Your task to perform on an android device: Open CNN.com Image 0: 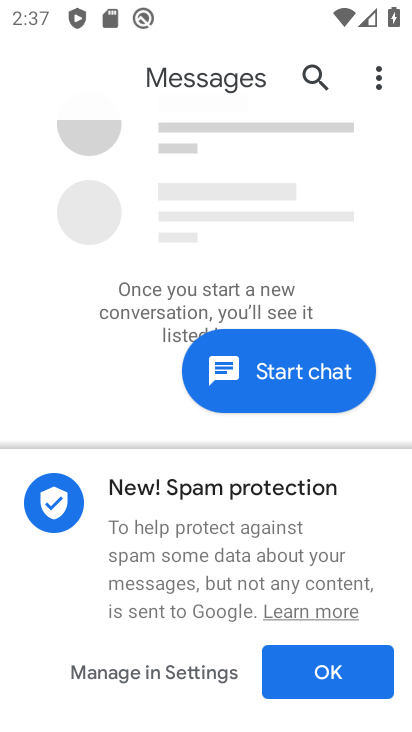
Step 0: press home button
Your task to perform on an android device: Open CNN.com Image 1: 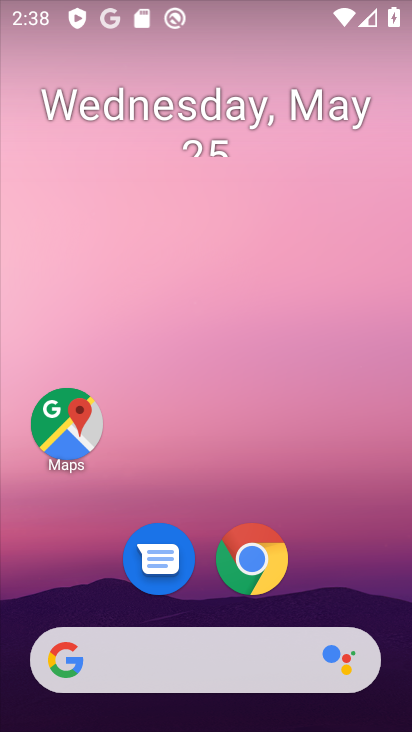
Step 1: click (248, 550)
Your task to perform on an android device: Open CNN.com Image 2: 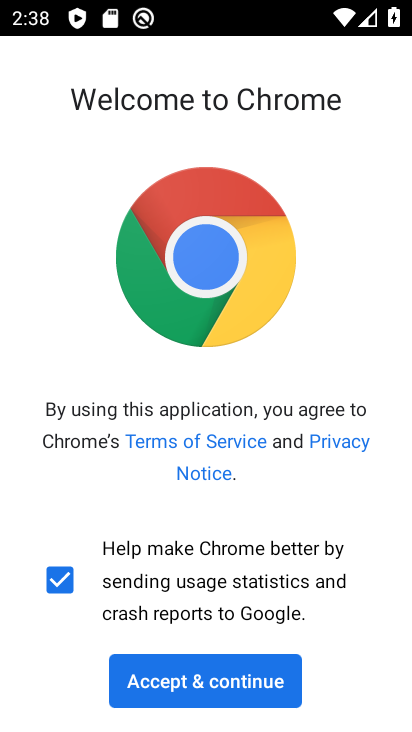
Step 2: click (195, 680)
Your task to perform on an android device: Open CNN.com Image 3: 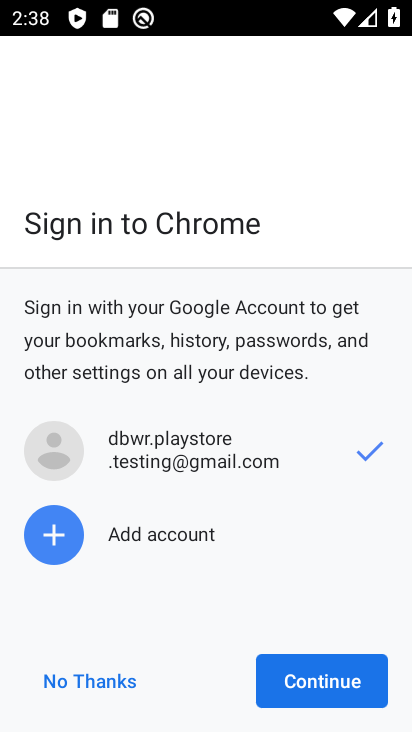
Step 3: click (321, 677)
Your task to perform on an android device: Open CNN.com Image 4: 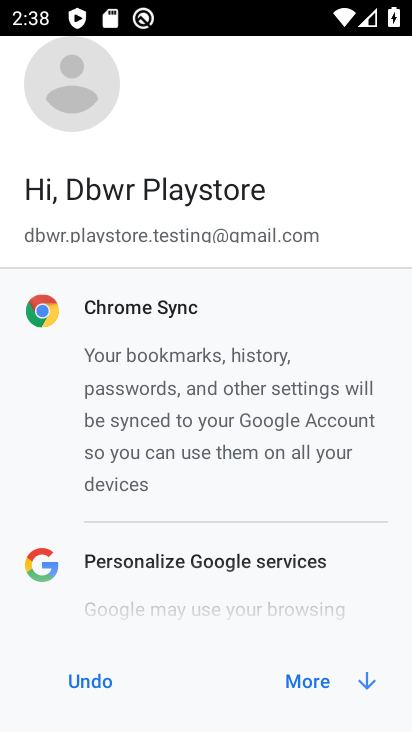
Step 4: click (318, 676)
Your task to perform on an android device: Open CNN.com Image 5: 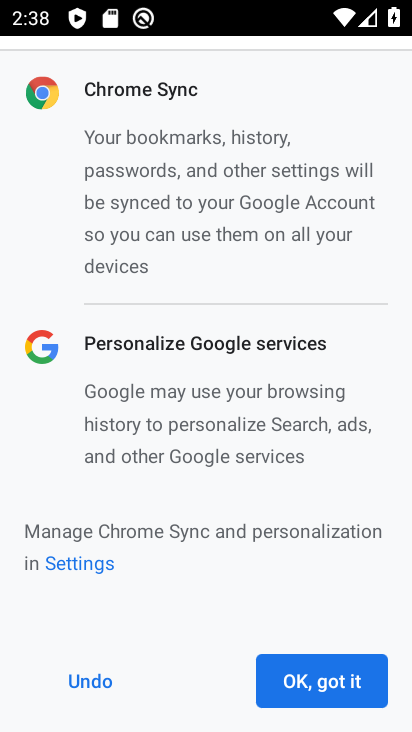
Step 5: click (315, 679)
Your task to perform on an android device: Open CNN.com Image 6: 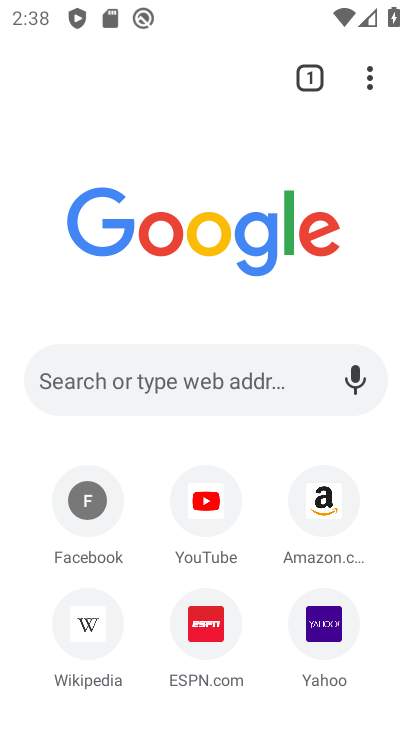
Step 6: click (130, 369)
Your task to perform on an android device: Open CNN.com Image 7: 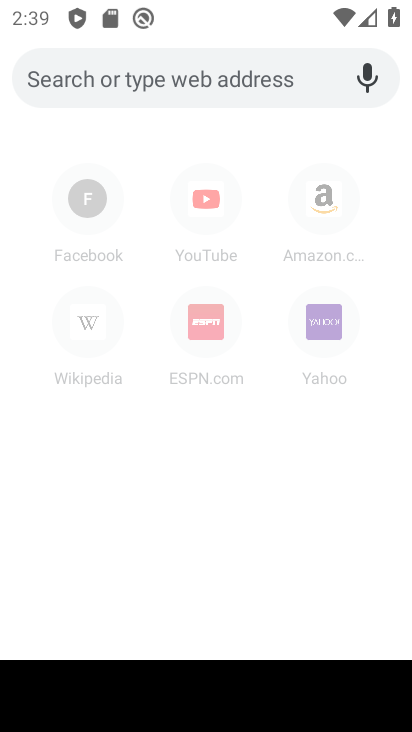
Step 7: type "cnn.com"
Your task to perform on an android device: Open CNN.com Image 8: 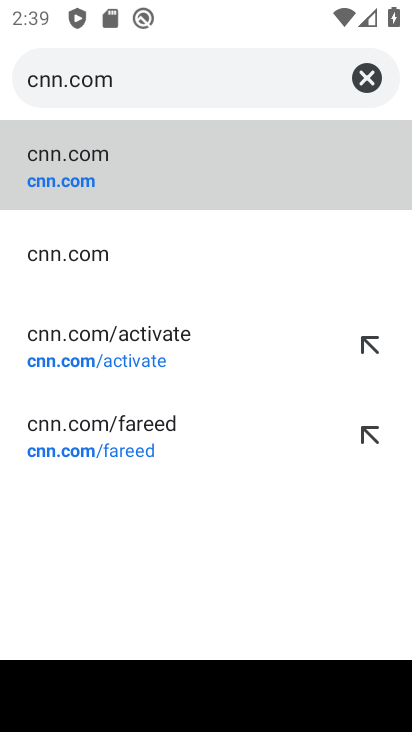
Step 8: click (101, 170)
Your task to perform on an android device: Open CNN.com Image 9: 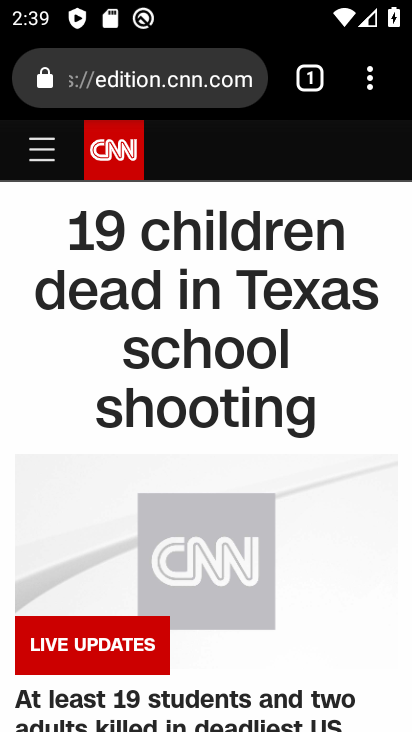
Step 9: drag from (245, 674) to (239, 125)
Your task to perform on an android device: Open CNN.com Image 10: 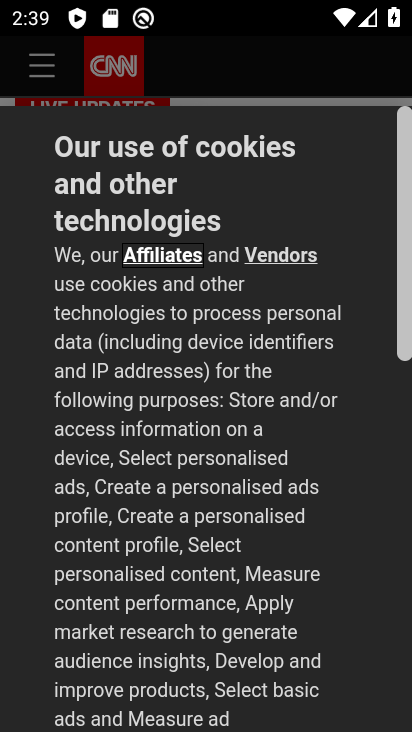
Step 10: drag from (187, 650) to (240, 147)
Your task to perform on an android device: Open CNN.com Image 11: 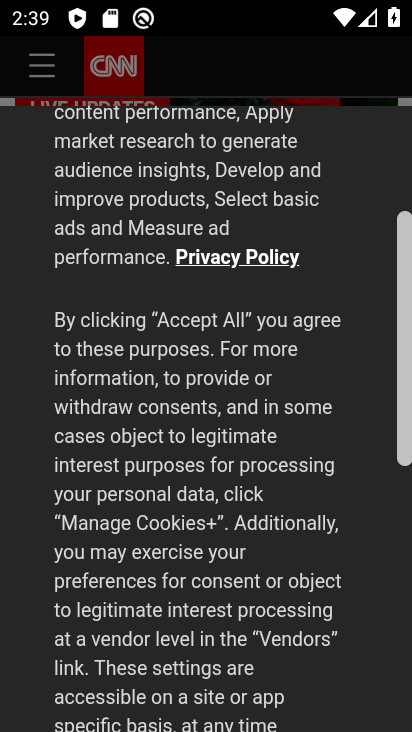
Step 11: drag from (208, 674) to (212, 32)
Your task to perform on an android device: Open CNN.com Image 12: 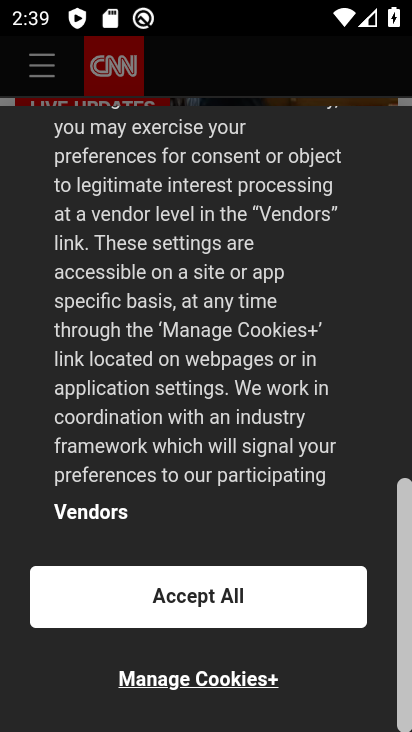
Step 12: click (212, 594)
Your task to perform on an android device: Open CNN.com Image 13: 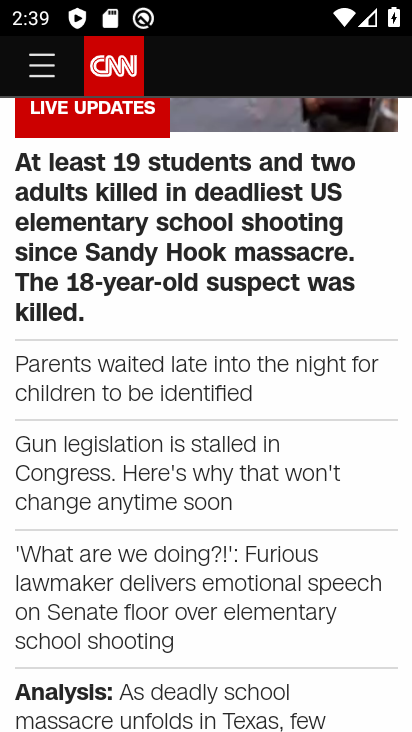
Step 13: task complete